Your task to perform on an android device: toggle wifi Image 0: 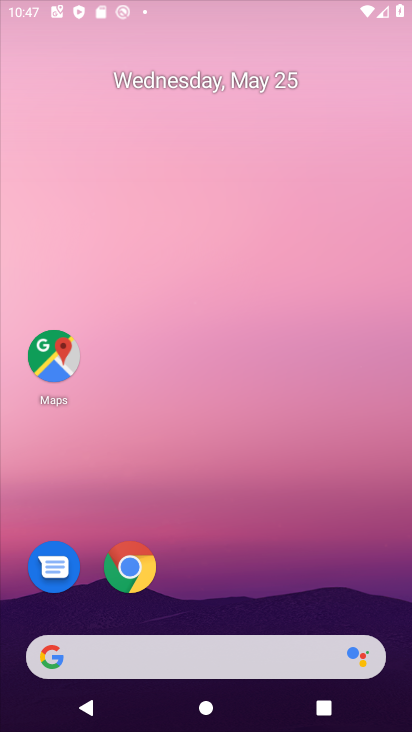
Step 0: drag from (321, 638) to (180, 110)
Your task to perform on an android device: toggle wifi Image 1: 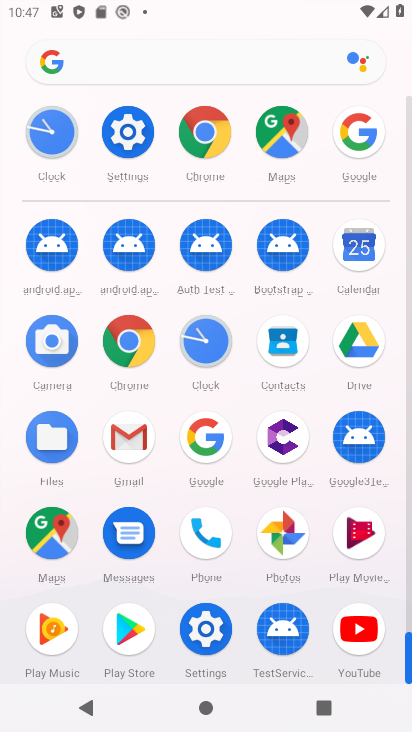
Step 1: click (123, 142)
Your task to perform on an android device: toggle wifi Image 2: 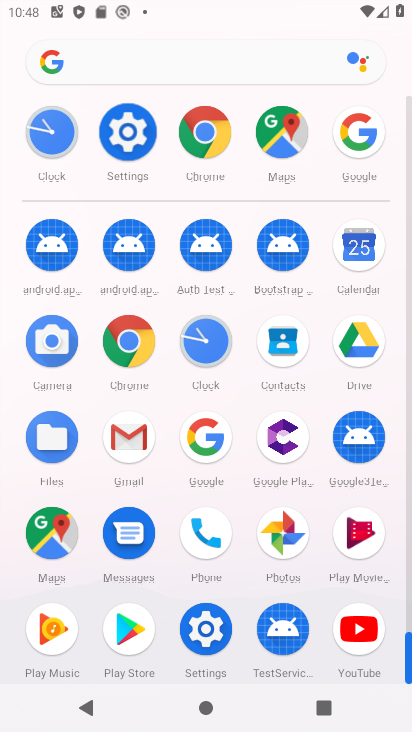
Step 2: click (123, 142)
Your task to perform on an android device: toggle wifi Image 3: 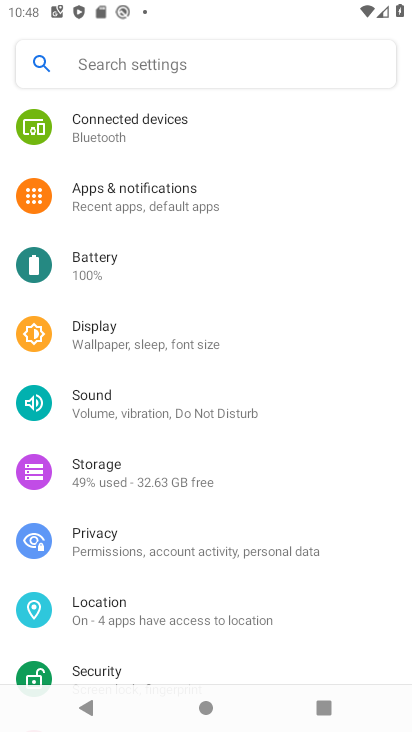
Step 3: drag from (122, 291) to (137, 595)
Your task to perform on an android device: toggle wifi Image 4: 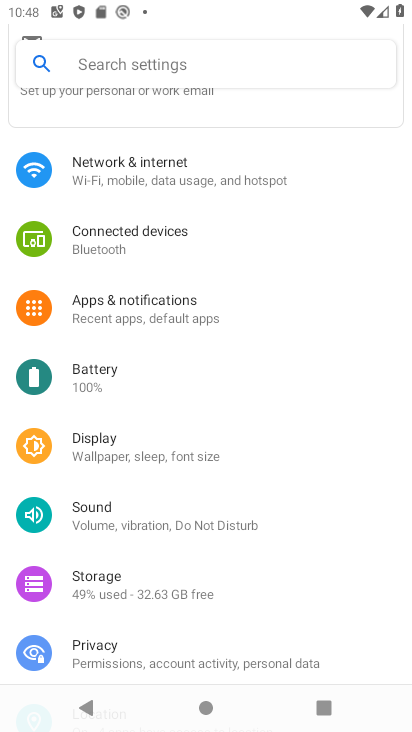
Step 4: drag from (129, 276) to (147, 601)
Your task to perform on an android device: toggle wifi Image 5: 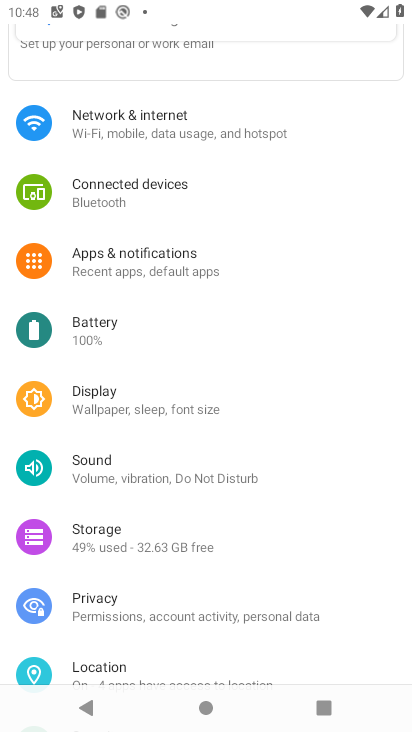
Step 5: click (154, 535)
Your task to perform on an android device: toggle wifi Image 6: 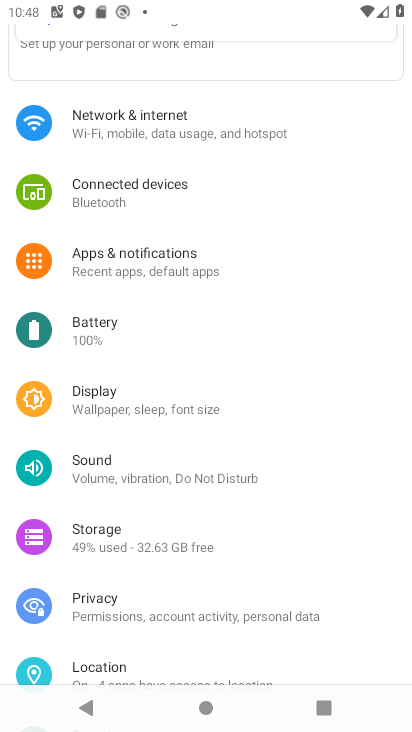
Step 6: drag from (155, 152) to (172, 500)
Your task to perform on an android device: toggle wifi Image 7: 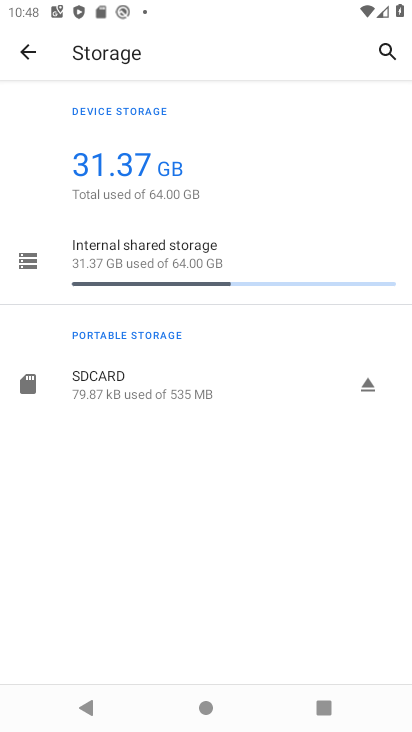
Step 7: click (115, 116)
Your task to perform on an android device: toggle wifi Image 8: 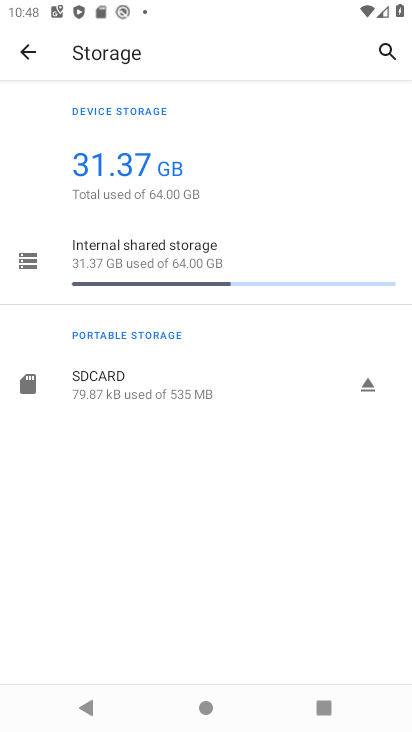
Step 8: click (22, 54)
Your task to perform on an android device: toggle wifi Image 9: 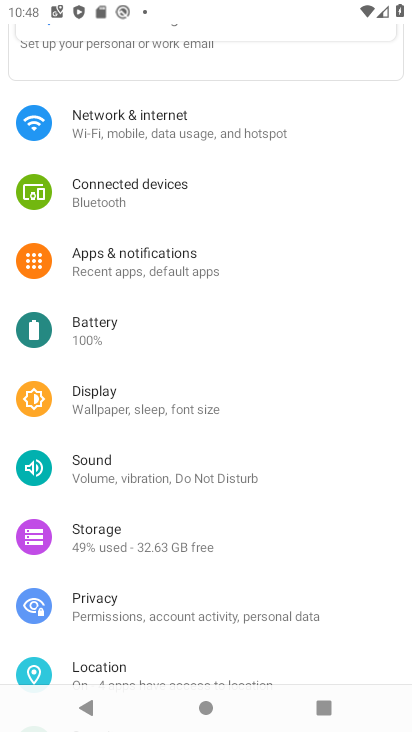
Step 9: click (102, 125)
Your task to perform on an android device: toggle wifi Image 10: 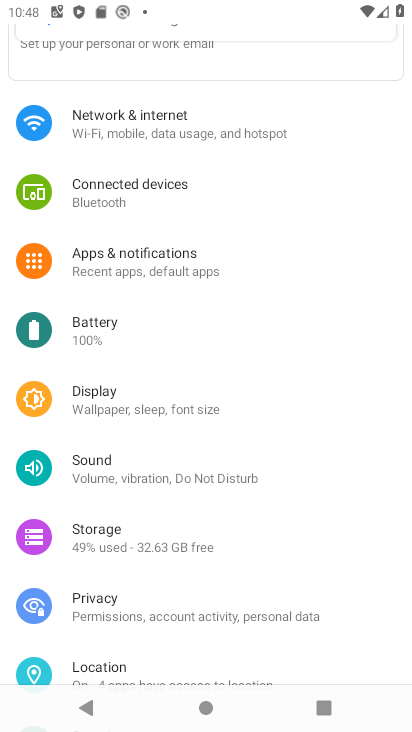
Step 10: click (102, 125)
Your task to perform on an android device: toggle wifi Image 11: 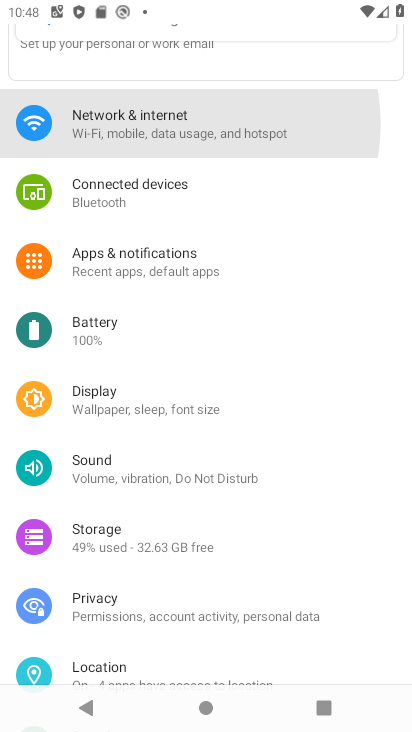
Step 11: click (102, 125)
Your task to perform on an android device: toggle wifi Image 12: 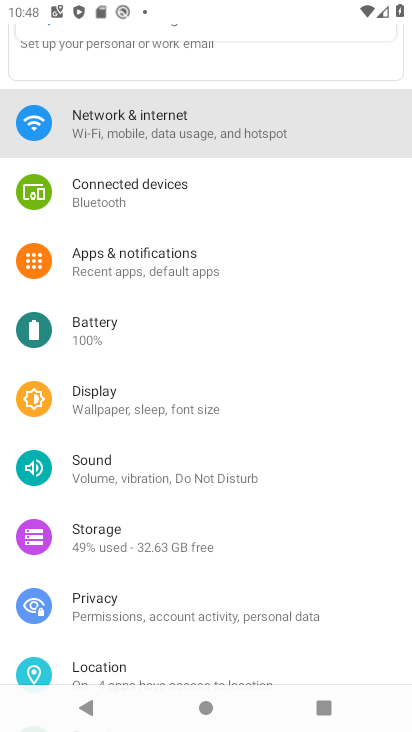
Step 12: click (102, 125)
Your task to perform on an android device: toggle wifi Image 13: 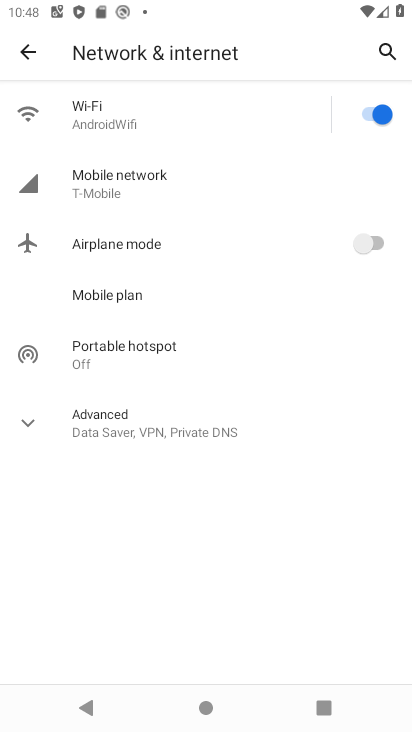
Step 13: click (373, 118)
Your task to perform on an android device: toggle wifi Image 14: 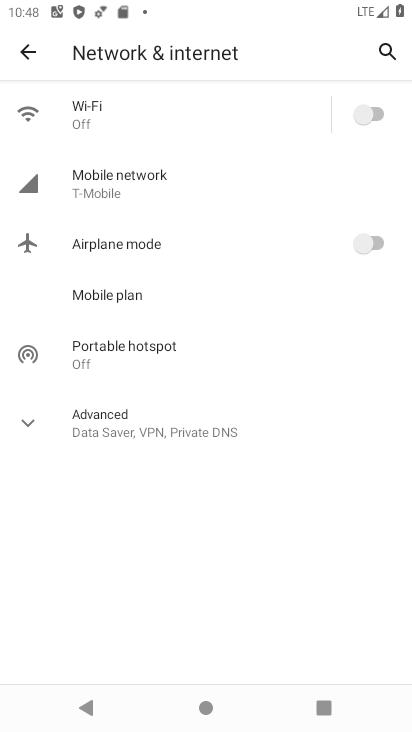
Step 14: task complete